Your task to perform on an android device: Open the web browser Image 0: 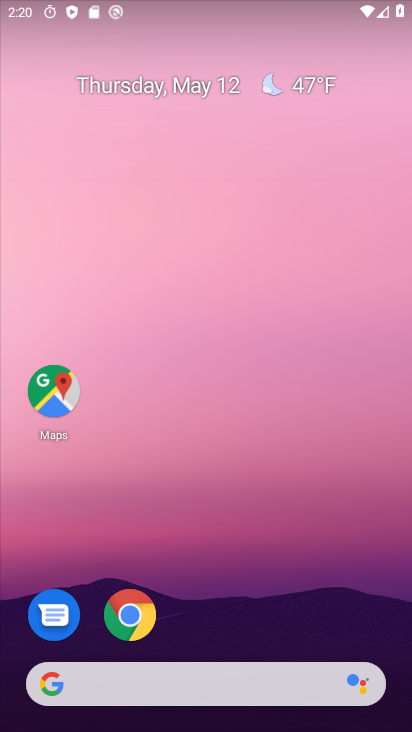
Step 0: drag from (218, 620) to (198, 146)
Your task to perform on an android device: Open the web browser Image 1: 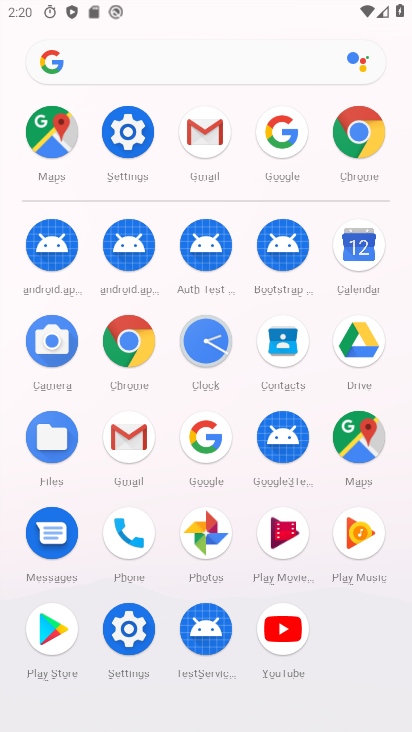
Step 1: click (203, 440)
Your task to perform on an android device: Open the web browser Image 2: 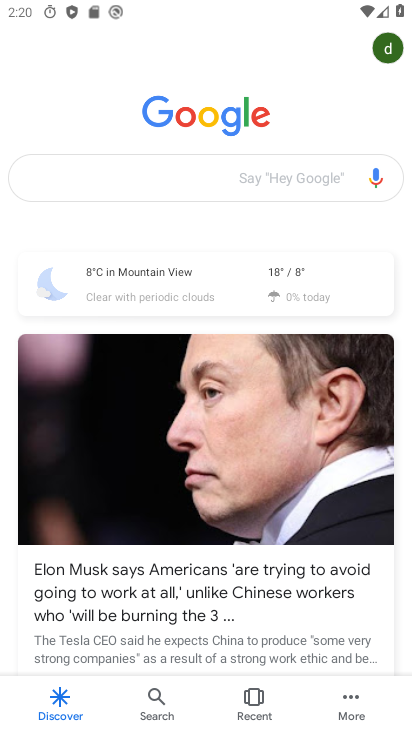
Step 2: task complete